Your task to perform on an android device: What's the weather going to be tomorrow? Image 0: 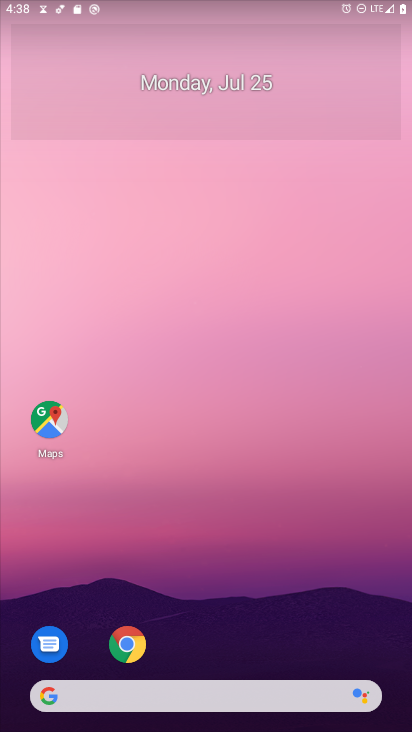
Step 0: press home button
Your task to perform on an android device: What's the weather going to be tomorrow? Image 1: 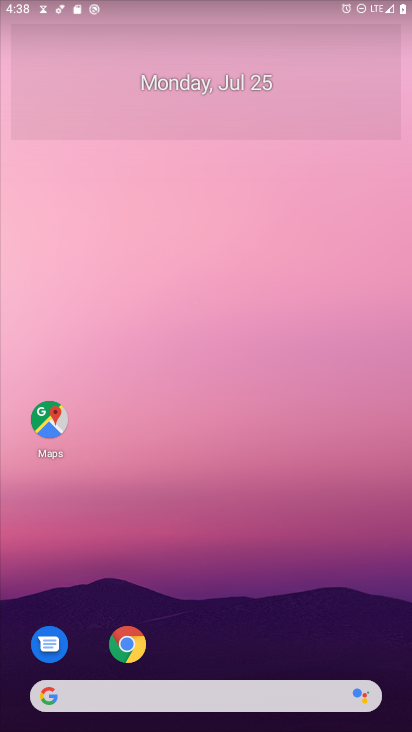
Step 1: click (51, 697)
Your task to perform on an android device: What's the weather going to be tomorrow? Image 2: 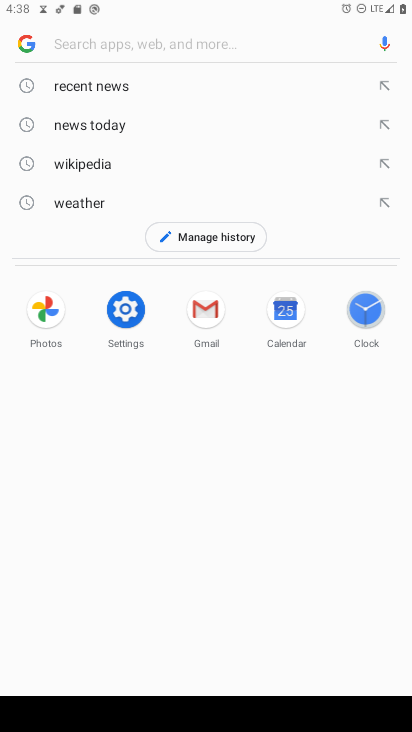
Step 2: type "What's the weather going to be tomorrow?"
Your task to perform on an android device: What's the weather going to be tomorrow? Image 3: 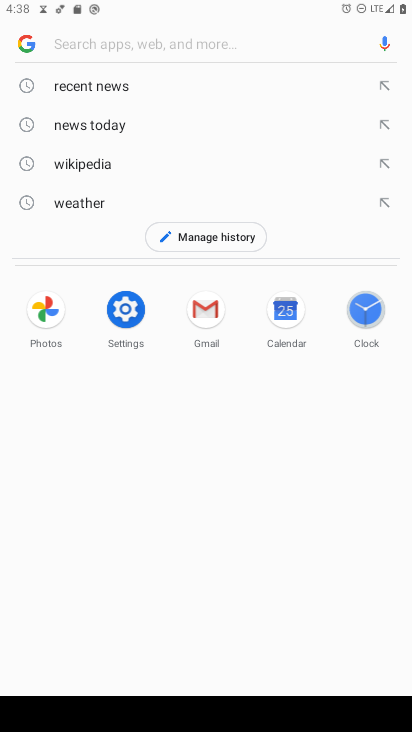
Step 3: click (86, 43)
Your task to perform on an android device: What's the weather going to be tomorrow? Image 4: 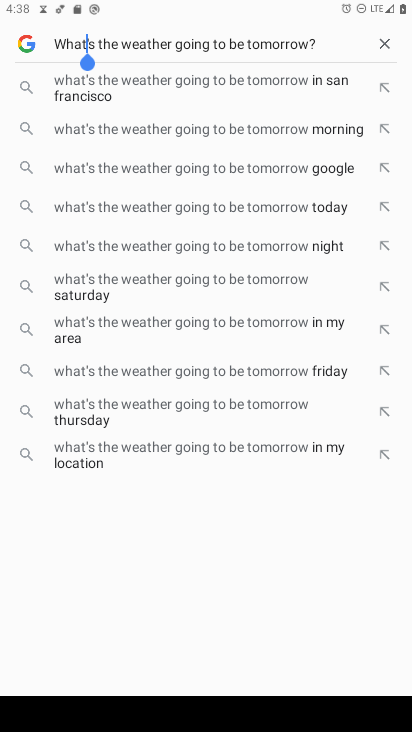
Step 4: click (108, 41)
Your task to perform on an android device: What's the weather going to be tomorrow? Image 5: 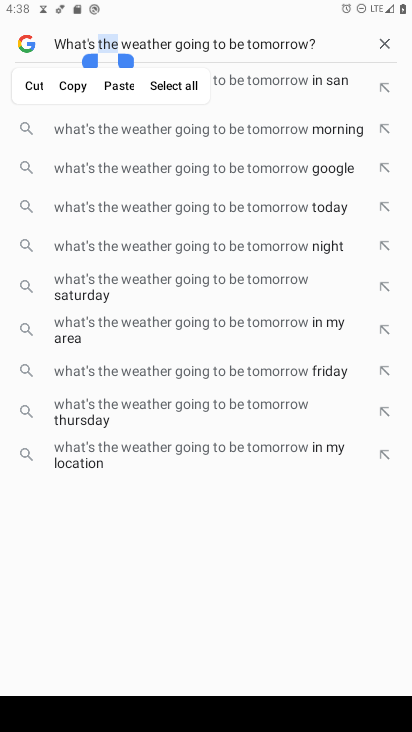
Step 5: press enter
Your task to perform on an android device: What's the weather going to be tomorrow? Image 6: 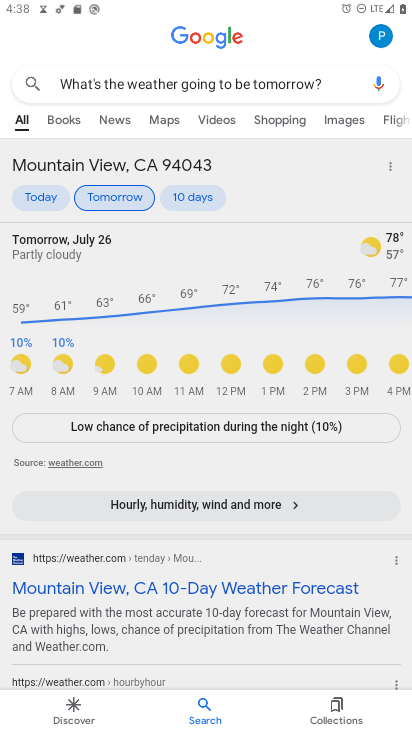
Step 6: task complete